Your task to perform on an android device: create a new album in the google photos Image 0: 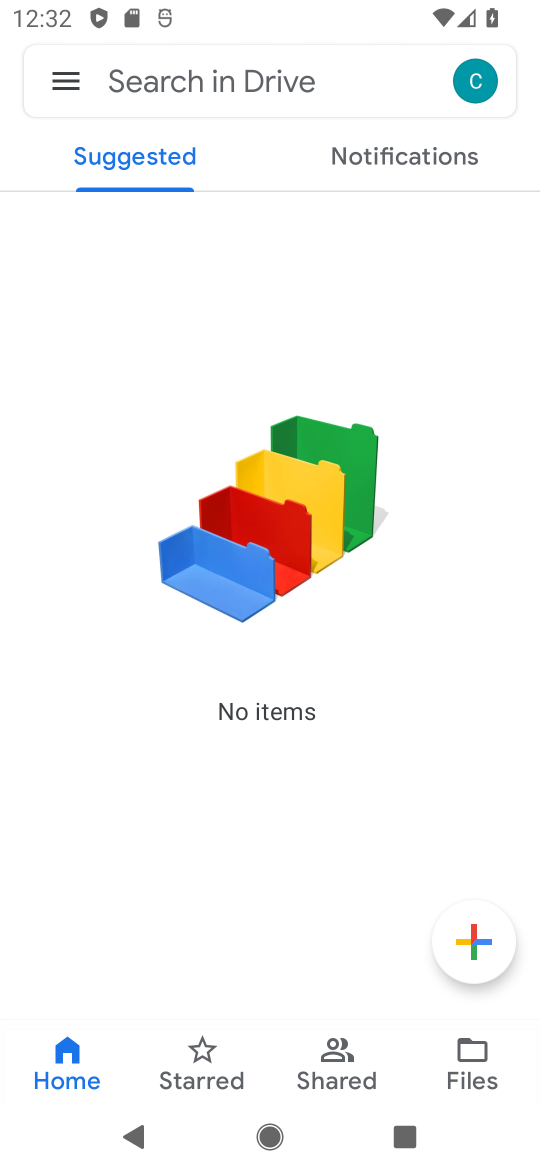
Step 0: press back button
Your task to perform on an android device: create a new album in the google photos Image 1: 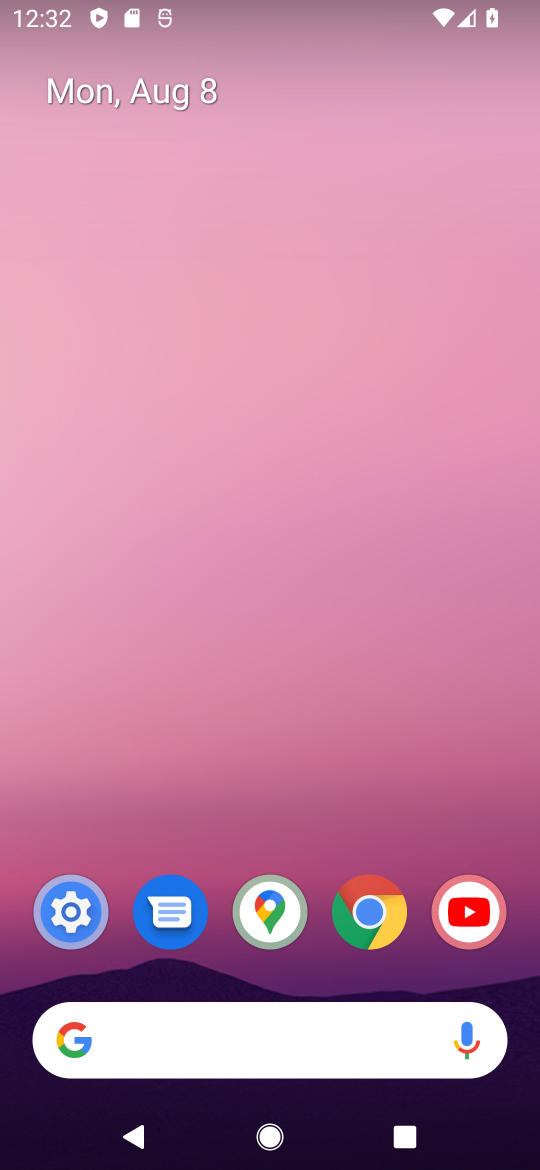
Step 1: drag from (289, 941) to (346, 0)
Your task to perform on an android device: create a new album in the google photos Image 2: 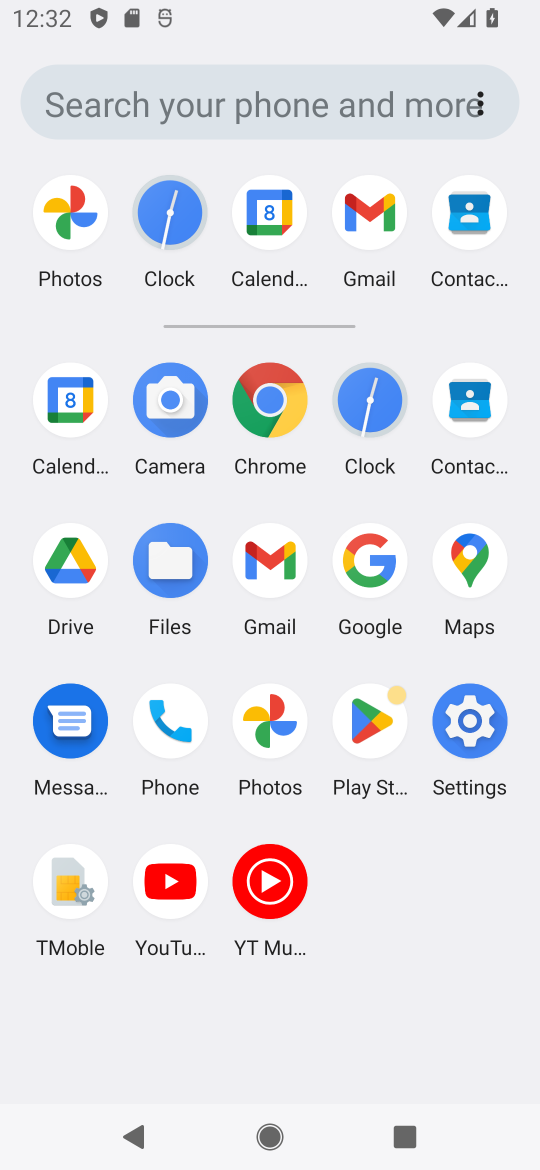
Step 2: click (262, 727)
Your task to perform on an android device: create a new album in the google photos Image 3: 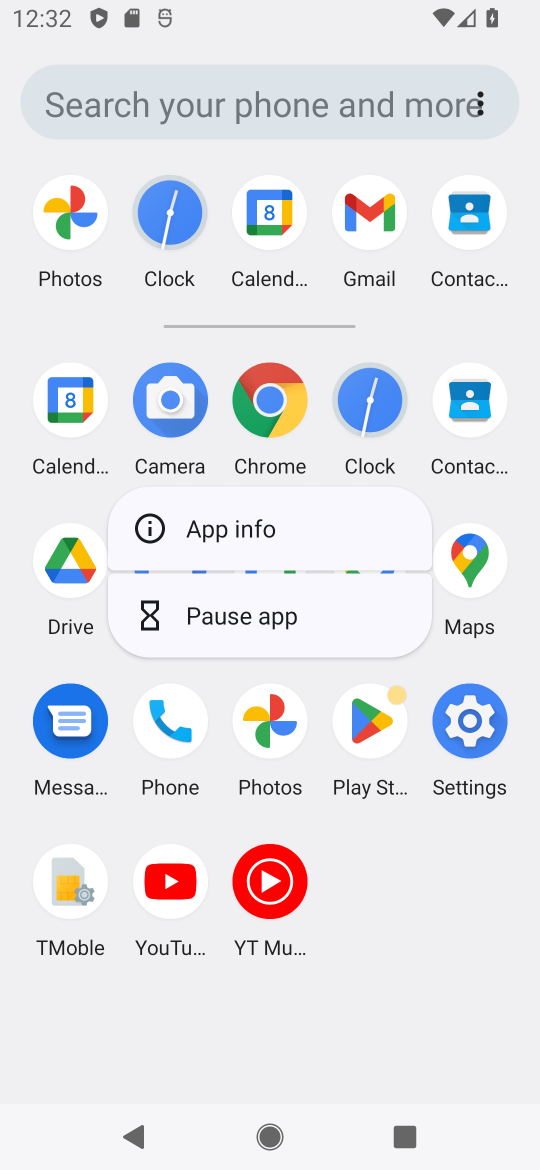
Step 3: click (282, 721)
Your task to perform on an android device: create a new album in the google photos Image 4: 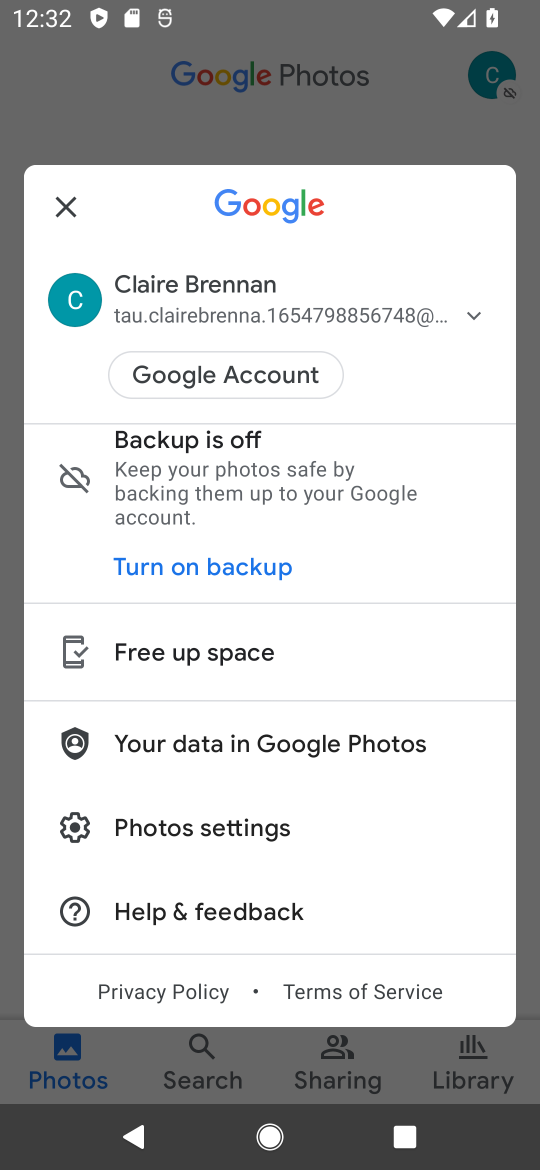
Step 4: click (69, 206)
Your task to perform on an android device: create a new album in the google photos Image 5: 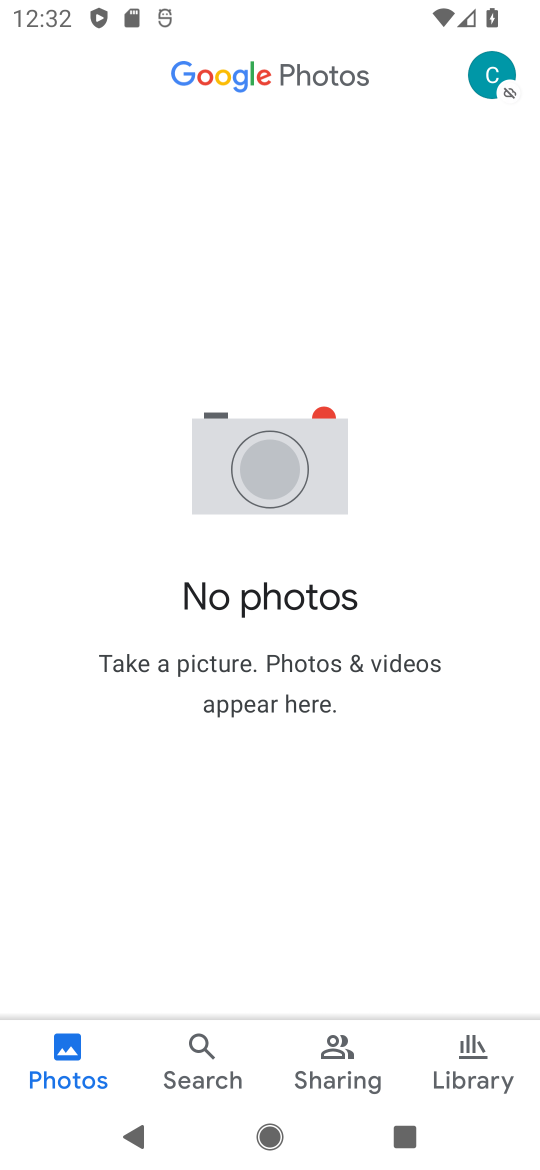
Step 5: task complete